Your task to perform on an android device: Go to settings Image 0: 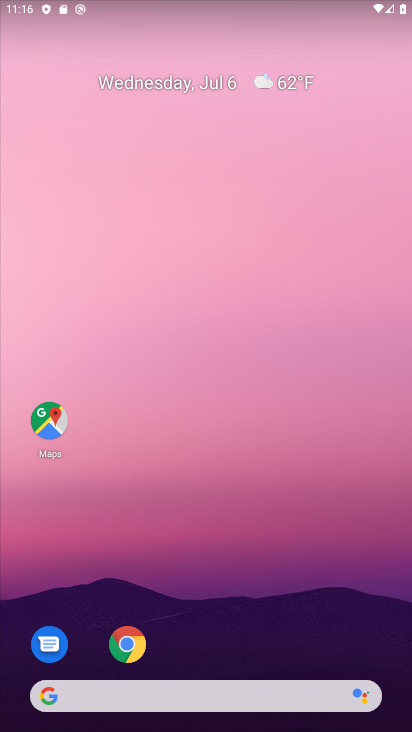
Step 0: drag from (217, 639) to (234, 133)
Your task to perform on an android device: Go to settings Image 1: 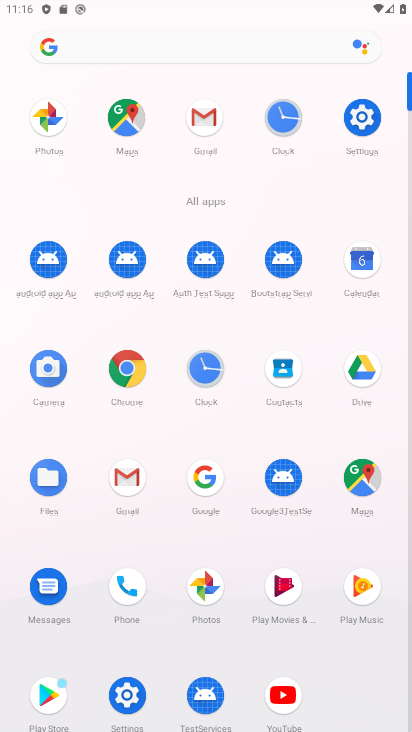
Step 1: click (138, 704)
Your task to perform on an android device: Go to settings Image 2: 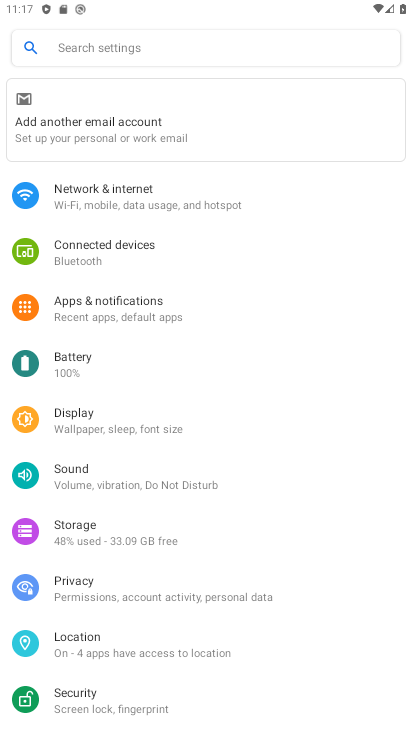
Step 2: task complete